Your task to perform on an android device: Open accessibility settings Image 0: 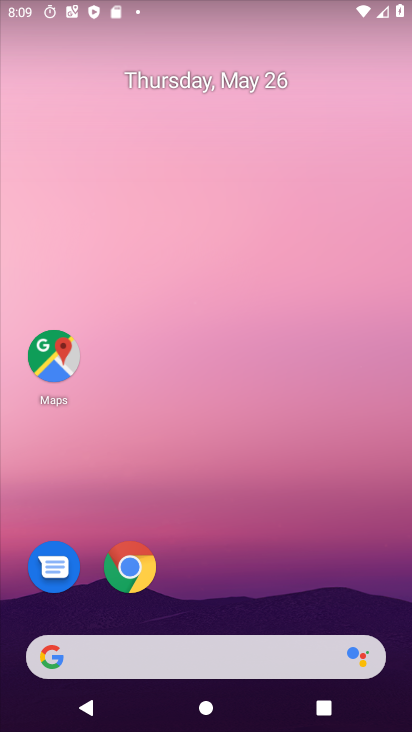
Step 0: drag from (158, 648) to (286, 121)
Your task to perform on an android device: Open accessibility settings Image 1: 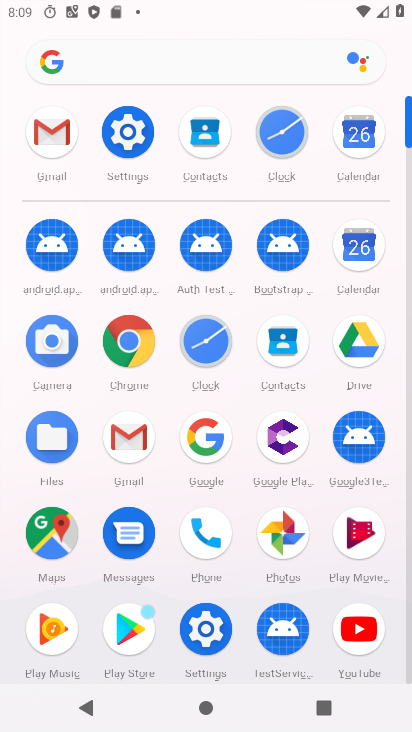
Step 1: click (127, 140)
Your task to perform on an android device: Open accessibility settings Image 2: 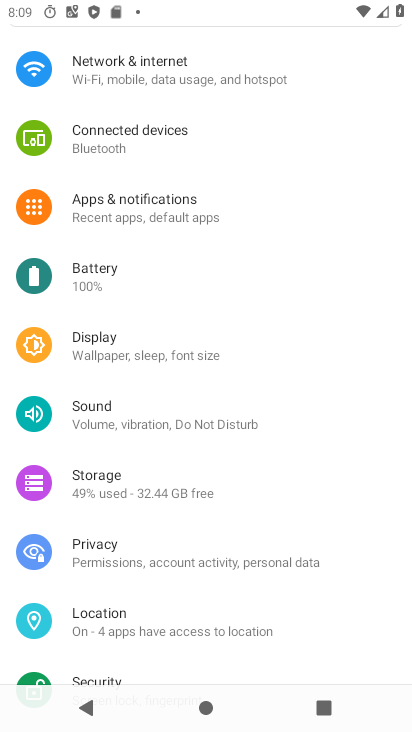
Step 2: drag from (220, 622) to (404, 250)
Your task to perform on an android device: Open accessibility settings Image 3: 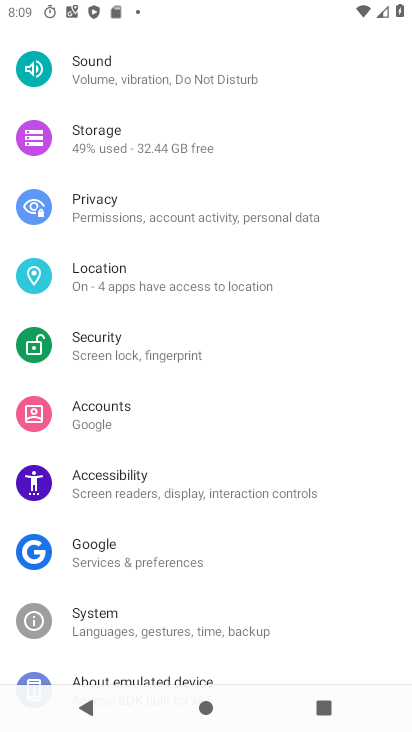
Step 3: click (136, 479)
Your task to perform on an android device: Open accessibility settings Image 4: 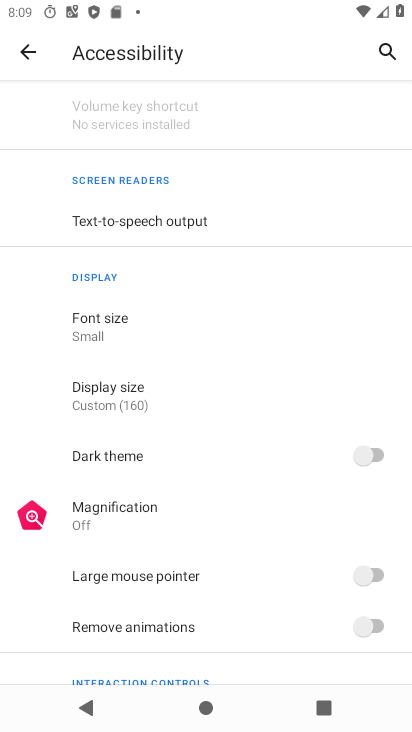
Step 4: task complete